Your task to perform on an android device: search for starred emails in the gmail app Image 0: 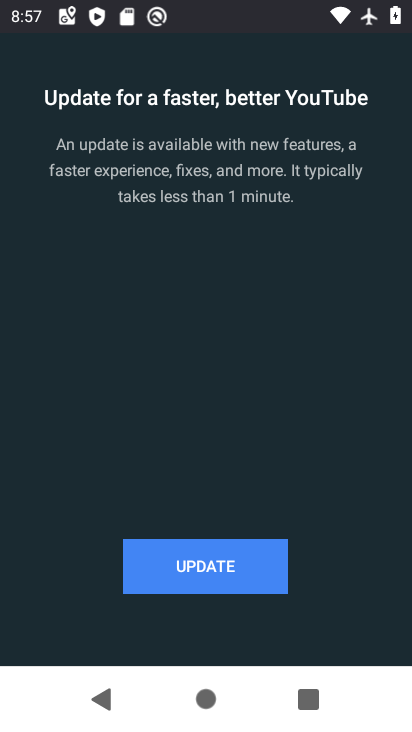
Step 0: press home button
Your task to perform on an android device: search for starred emails in the gmail app Image 1: 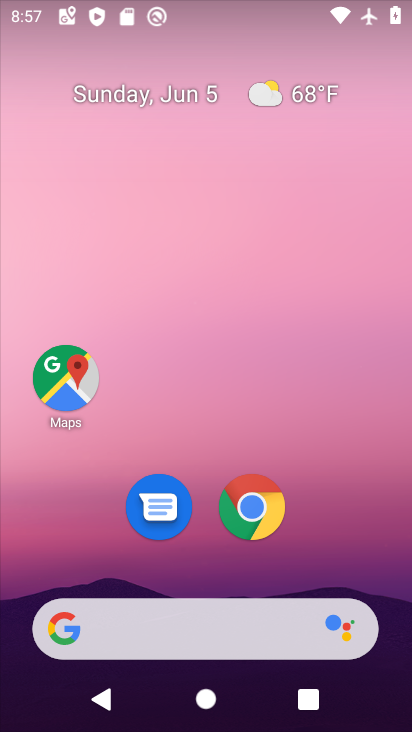
Step 1: drag from (189, 526) to (195, 4)
Your task to perform on an android device: search for starred emails in the gmail app Image 2: 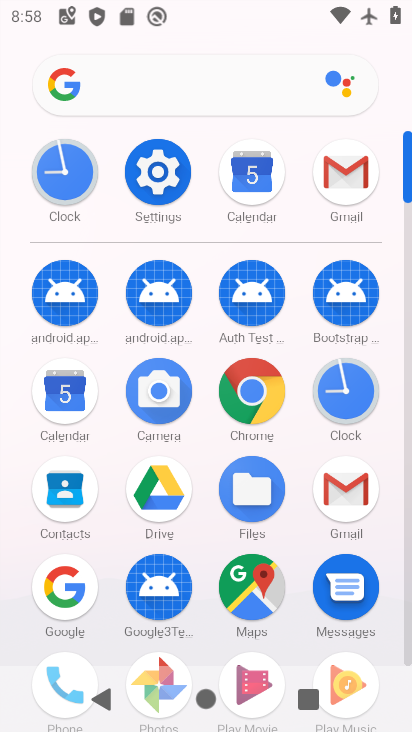
Step 2: click (351, 502)
Your task to perform on an android device: search for starred emails in the gmail app Image 3: 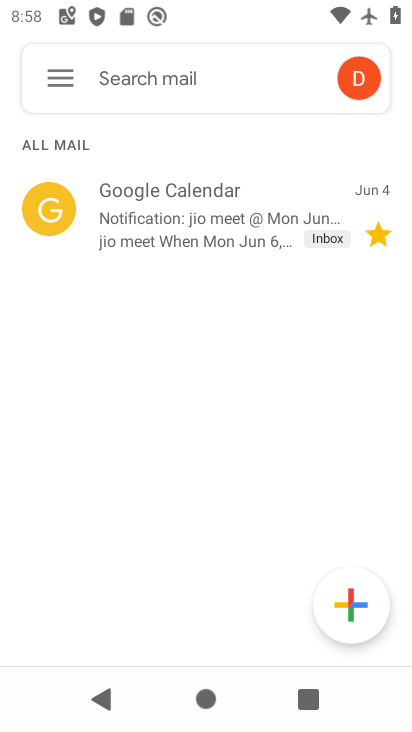
Step 3: click (49, 84)
Your task to perform on an android device: search for starred emails in the gmail app Image 4: 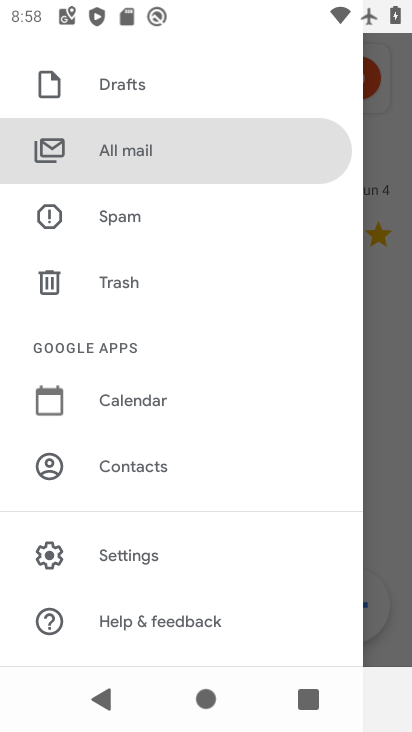
Step 4: drag from (159, 212) to (164, 630)
Your task to perform on an android device: search for starred emails in the gmail app Image 5: 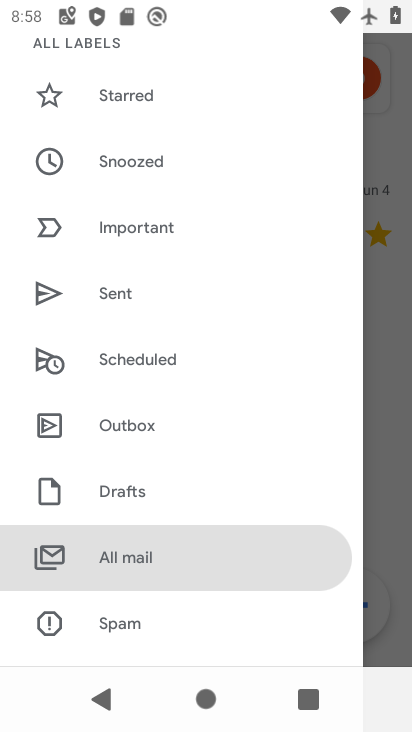
Step 5: click (114, 107)
Your task to perform on an android device: search for starred emails in the gmail app Image 6: 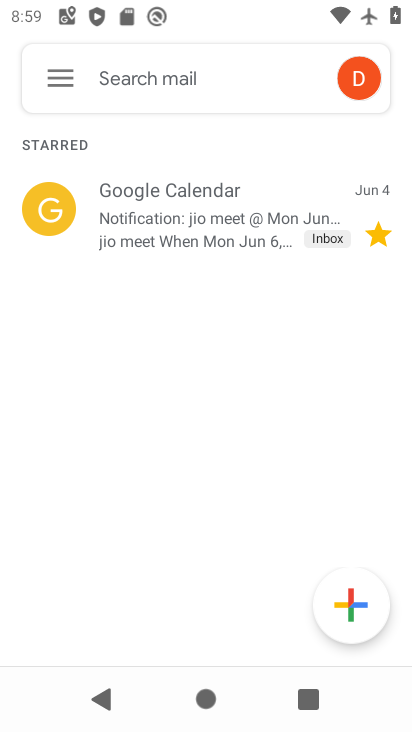
Step 6: task complete